Your task to perform on an android device: Open Google Chrome Image 0: 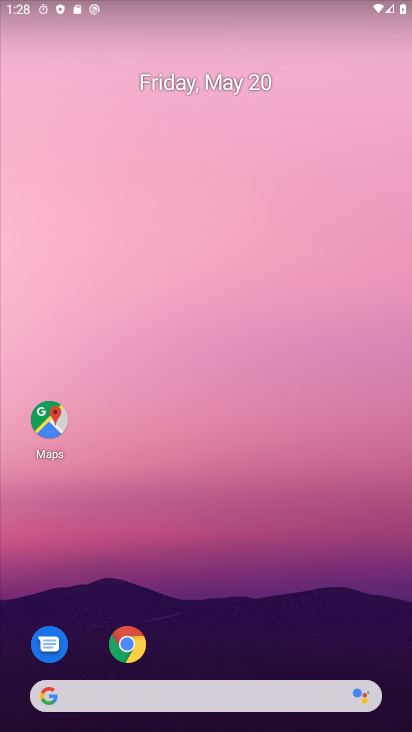
Step 0: click (128, 654)
Your task to perform on an android device: Open Google Chrome Image 1: 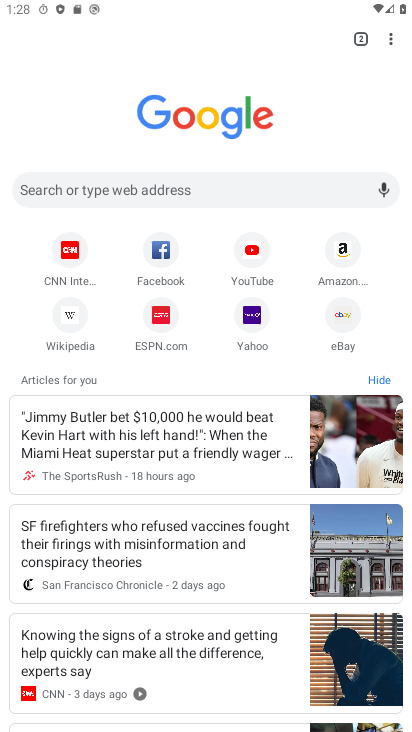
Step 1: task complete